Your task to perform on an android device: Turn on the flashlight Image 0: 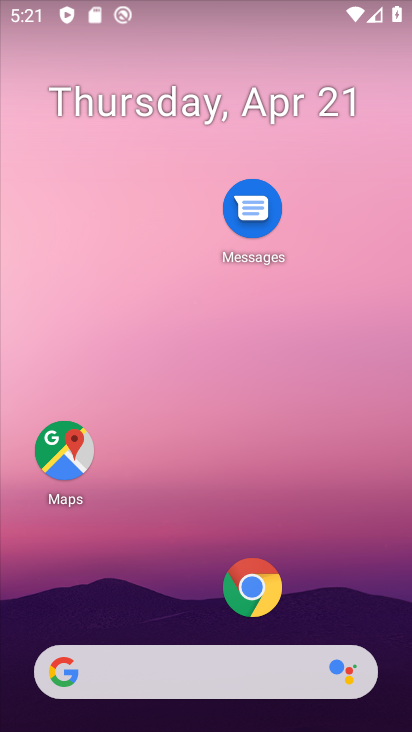
Step 0: drag from (201, 627) to (199, 75)
Your task to perform on an android device: Turn on the flashlight Image 1: 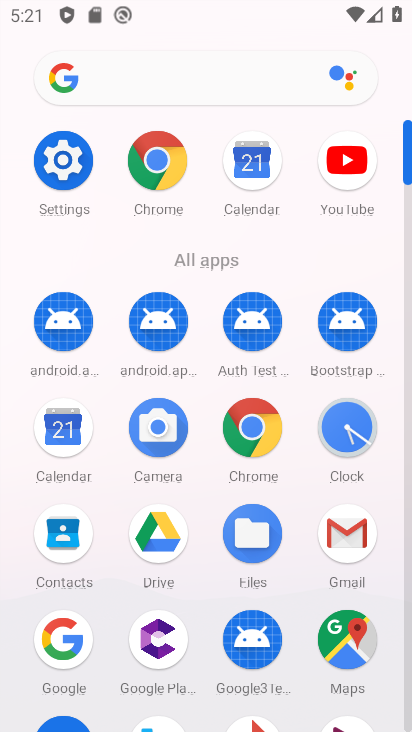
Step 1: click (60, 153)
Your task to perform on an android device: Turn on the flashlight Image 2: 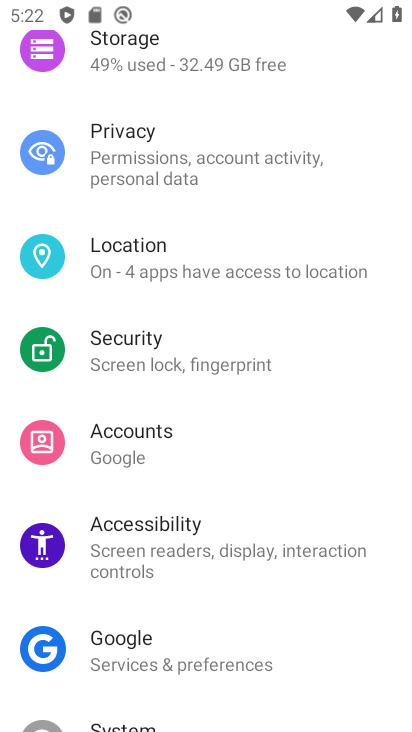
Step 2: drag from (205, 612) to (265, 720)
Your task to perform on an android device: Turn on the flashlight Image 3: 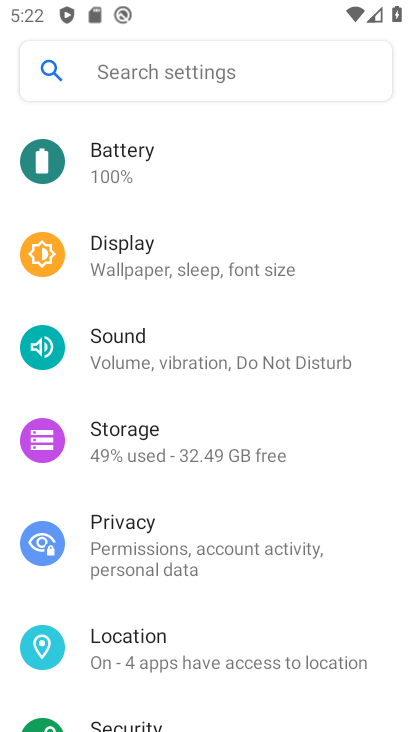
Step 3: click (166, 74)
Your task to perform on an android device: Turn on the flashlight Image 4: 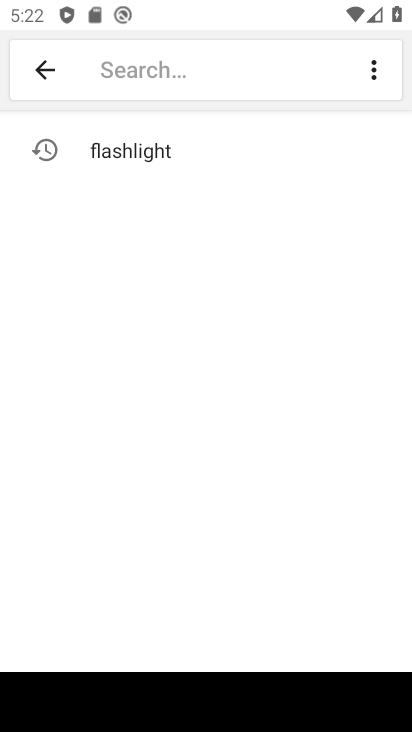
Step 4: click (150, 152)
Your task to perform on an android device: Turn on the flashlight Image 5: 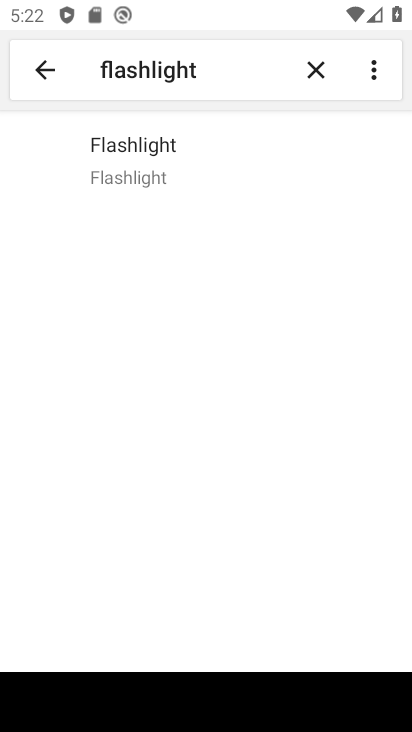
Step 5: task complete